Your task to perform on an android device: open app "Airtel Thanks" (install if not already installed), go to login, and select forgot password Image 0: 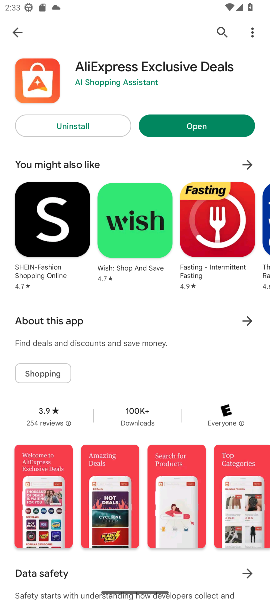
Step 0: click (5, 26)
Your task to perform on an android device: open app "Airtel Thanks" (install if not already installed), go to login, and select forgot password Image 1: 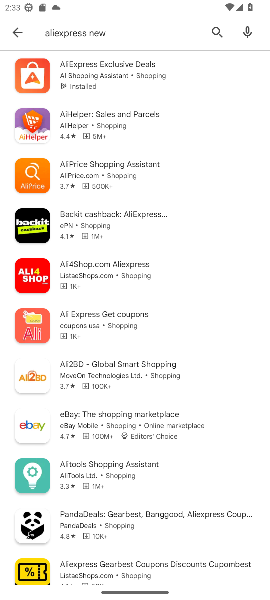
Step 1: click (19, 25)
Your task to perform on an android device: open app "Airtel Thanks" (install if not already installed), go to login, and select forgot password Image 2: 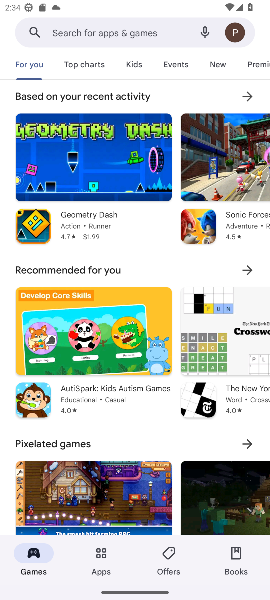
Step 2: click (110, 22)
Your task to perform on an android device: open app "Airtel Thanks" (install if not already installed), go to login, and select forgot password Image 3: 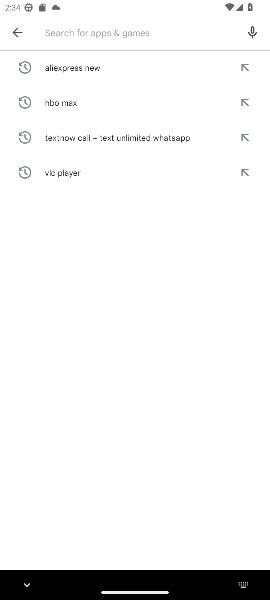
Step 3: type "Airtel Thanks "
Your task to perform on an android device: open app "Airtel Thanks" (install if not already installed), go to login, and select forgot password Image 4: 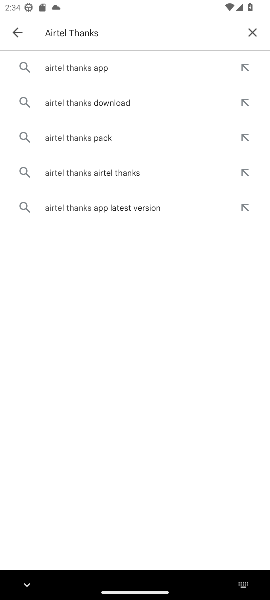
Step 4: click (75, 57)
Your task to perform on an android device: open app "Airtel Thanks" (install if not already installed), go to login, and select forgot password Image 5: 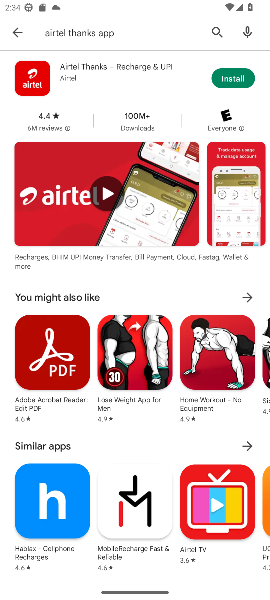
Step 5: click (231, 79)
Your task to perform on an android device: open app "Airtel Thanks" (install if not already installed), go to login, and select forgot password Image 6: 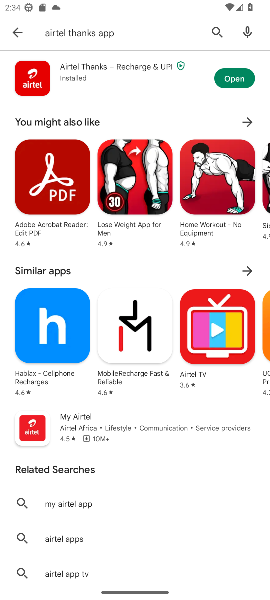
Step 6: click (236, 73)
Your task to perform on an android device: open app "Airtel Thanks" (install if not already installed), go to login, and select forgot password Image 7: 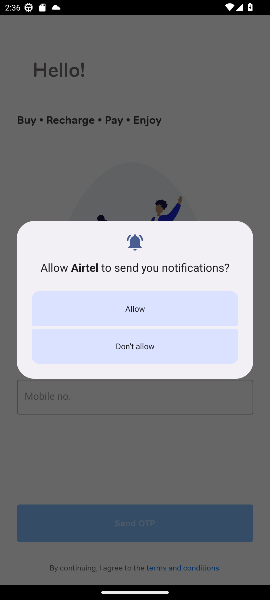
Step 7: click (151, 311)
Your task to perform on an android device: open app "Airtel Thanks" (install if not already installed), go to login, and select forgot password Image 8: 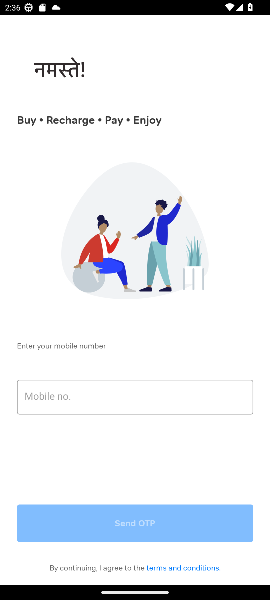
Step 8: task complete